Your task to perform on an android device: toggle translation in the chrome app Image 0: 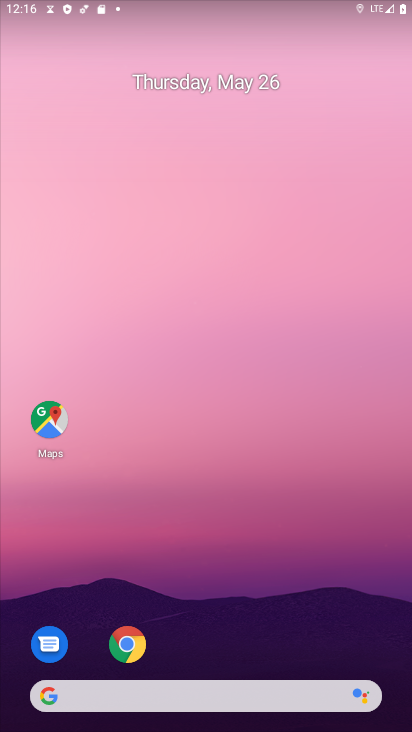
Step 0: click (129, 644)
Your task to perform on an android device: toggle translation in the chrome app Image 1: 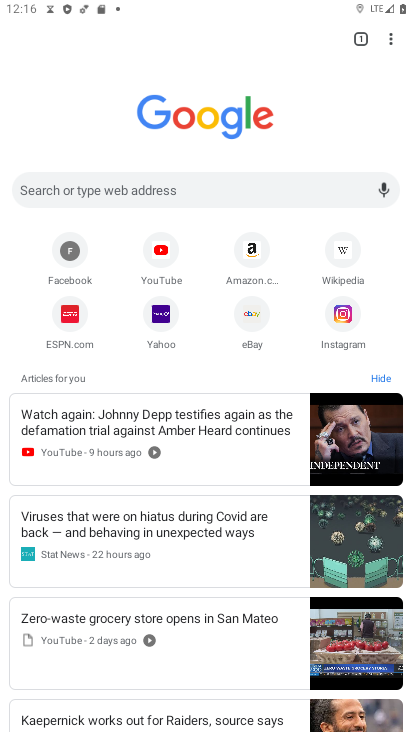
Step 1: click (391, 37)
Your task to perform on an android device: toggle translation in the chrome app Image 2: 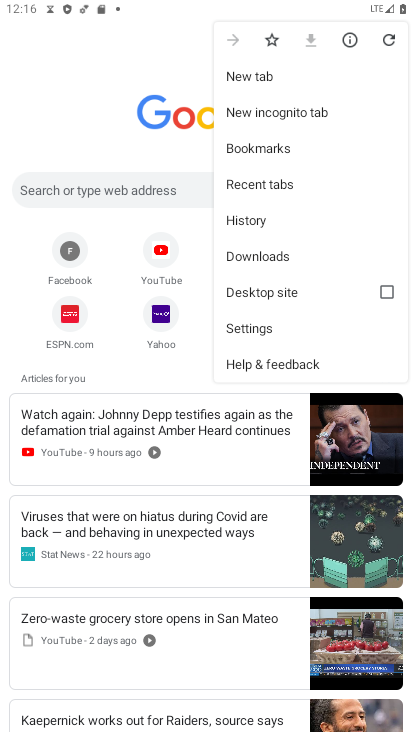
Step 2: click (260, 327)
Your task to perform on an android device: toggle translation in the chrome app Image 3: 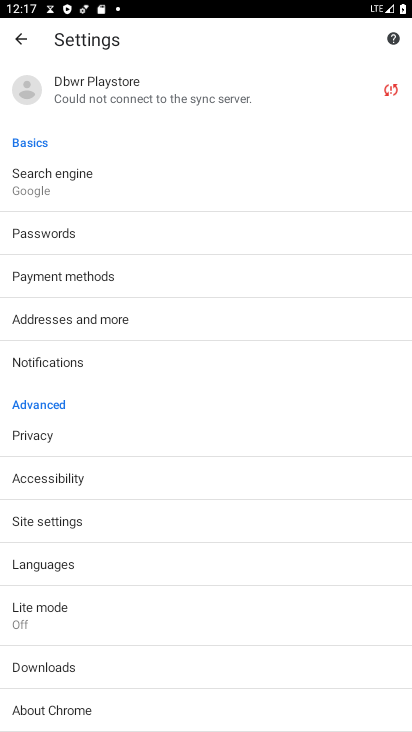
Step 3: click (56, 567)
Your task to perform on an android device: toggle translation in the chrome app Image 4: 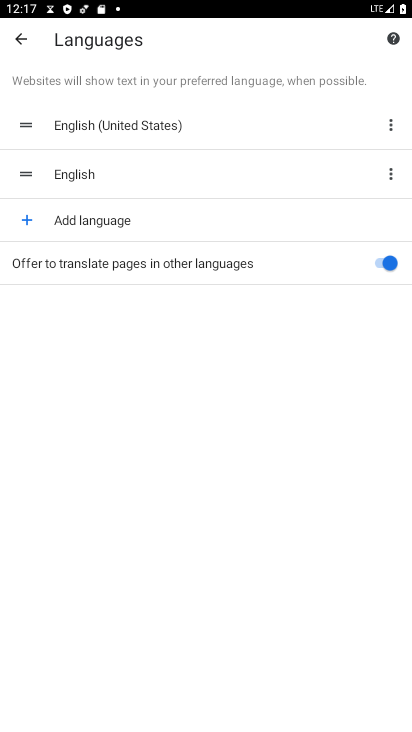
Step 4: click (383, 266)
Your task to perform on an android device: toggle translation in the chrome app Image 5: 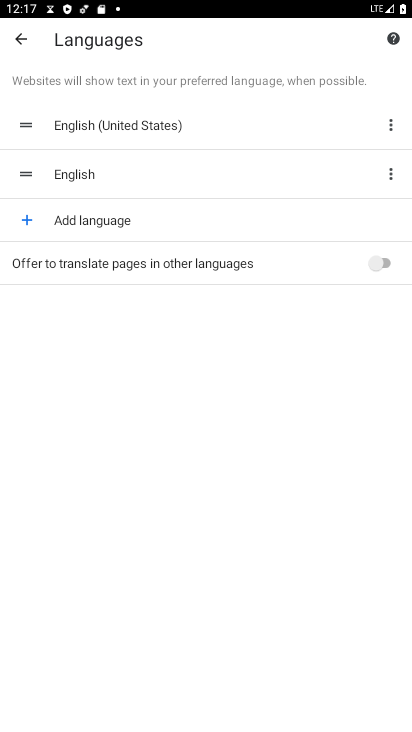
Step 5: task complete